Your task to perform on an android device: open chrome privacy settings Image 0: 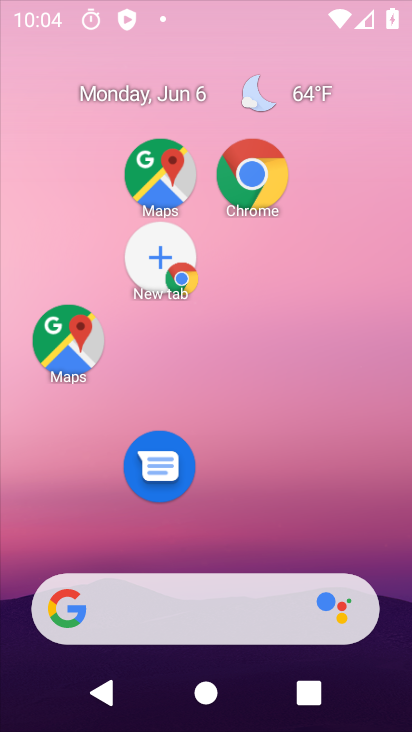
Step 0: press back button
Your task to perform on an android device: open chrome privacy settings Image 1: 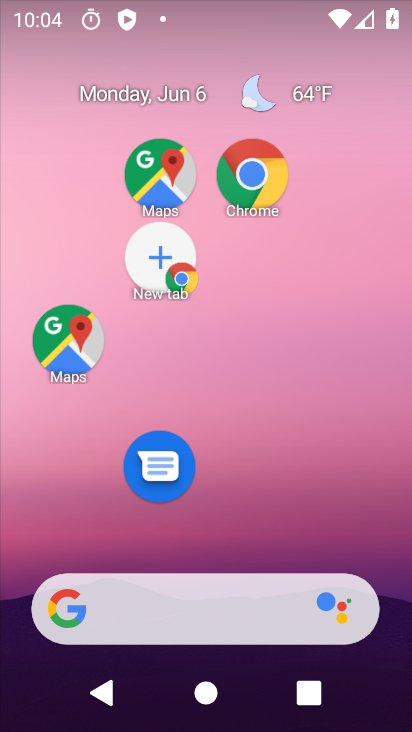
Step 1: drag from (281, 613) to (211, 123)
Your task to perform on an android device: open chrome privacy settings Image 2: 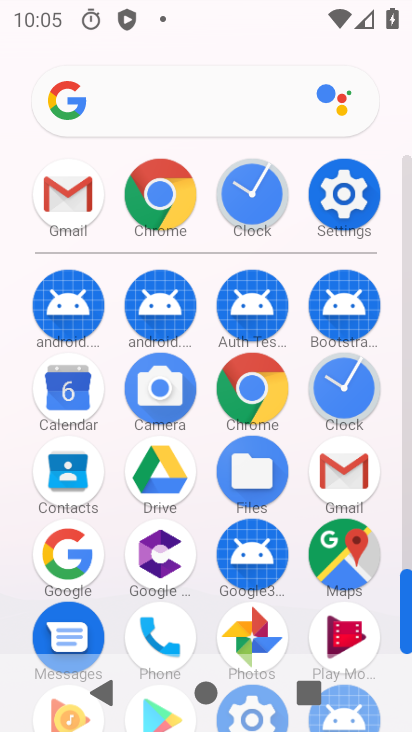
Step 2: click (330, 189)
Your task to perform on an android device: open chrome privacy settings Image 3: 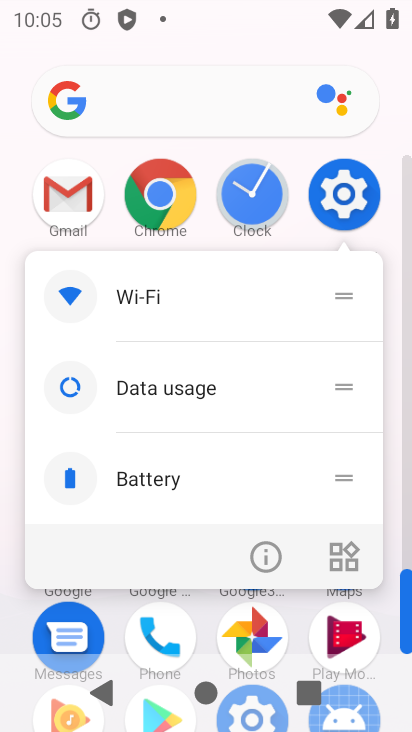
Step 3: click (336, 190)
Your task to perform on an android device: open chrome privacy settings Image 4: 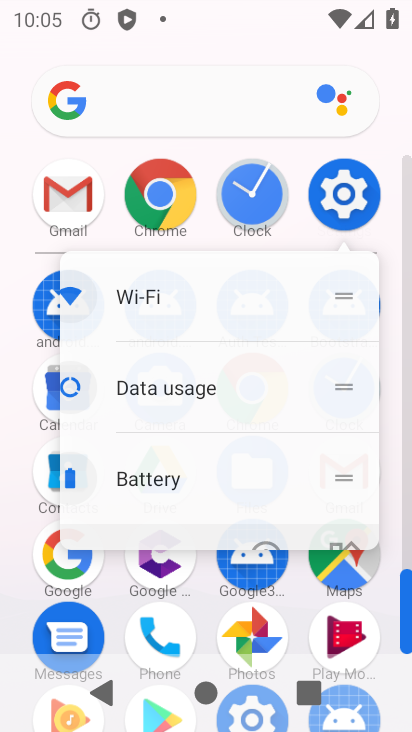
Step 4: click (331, 206)
Your task to perform on an android device: open chrome privacy settings Image 5: 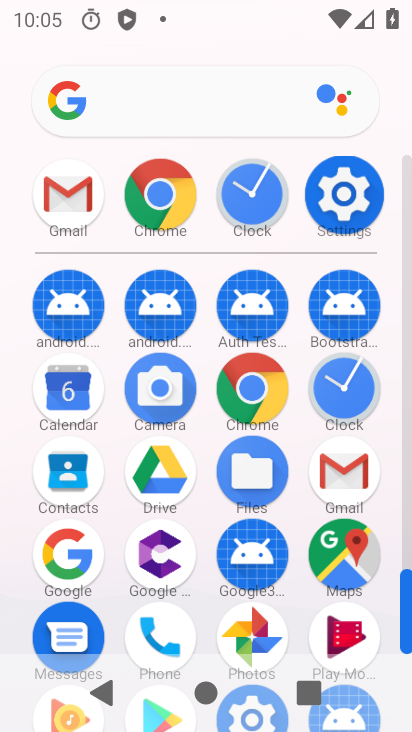
Step 5: click (346, 198)
Your task to perform on an android device: open chrome privacy settings Image 6: 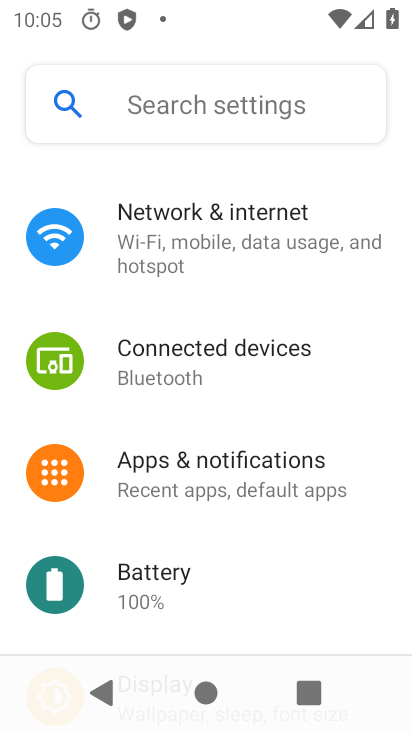
Step 6: click (343, 194)
Your task to perform on an android device: open chrome privacy settings Image 7: 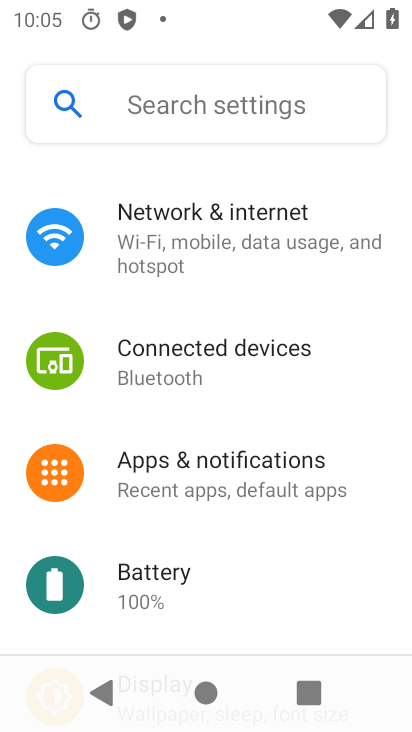
Step 7: click (357, 179)
Your task to perform on an android device: open chrome privacy settings Image 8: 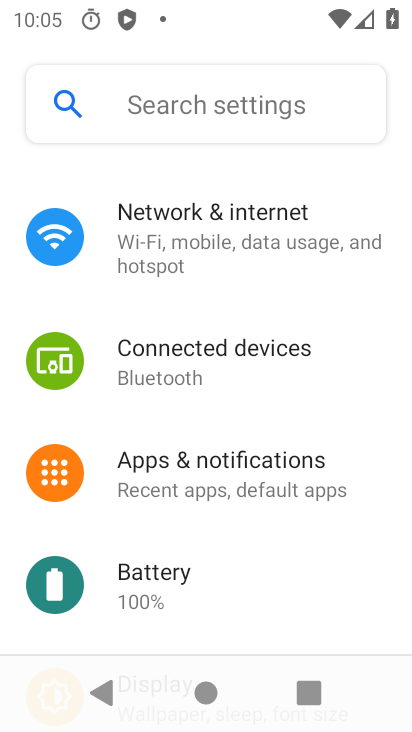
Step 8: click (345, 203)
Your task to perform on an android device: open chrome privacy settings Image 9: 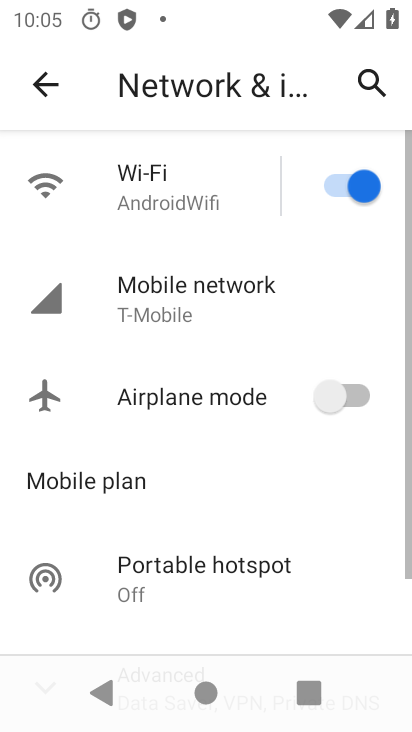
Step 9: click (343, 201)
Your task to perform on an android device: open chrome privacy settings Image 10: 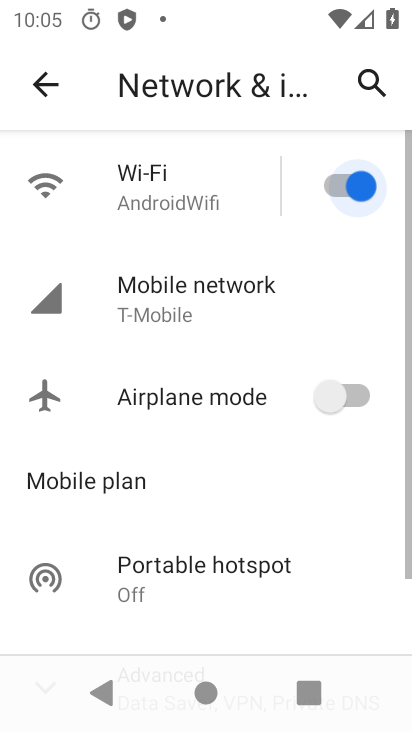
Step 10: click (342, 207)
Your task to perform on an android device: open chrome privacy settings Image 11: 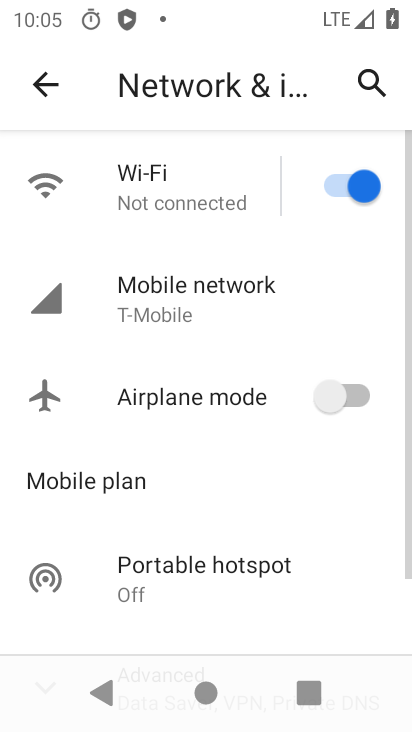
Step 11: click (211, 198)
Your task to perform on an android device: open chrome privacy settings Image 12: 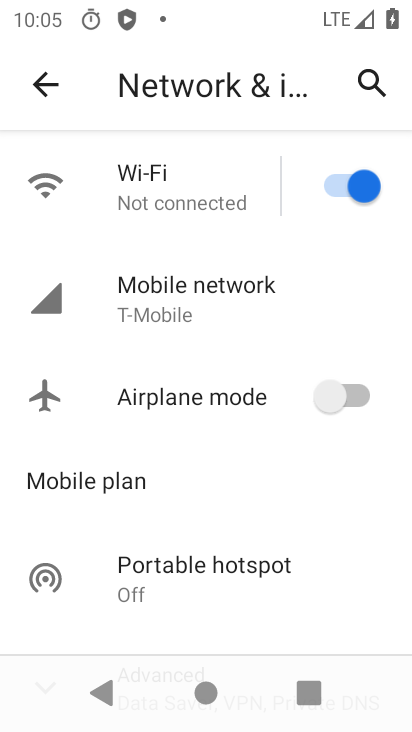
Step 12: drag from (189, 333) to (247, 188)
Your task to perform on an android device: open chrome privacy settings Image 13: 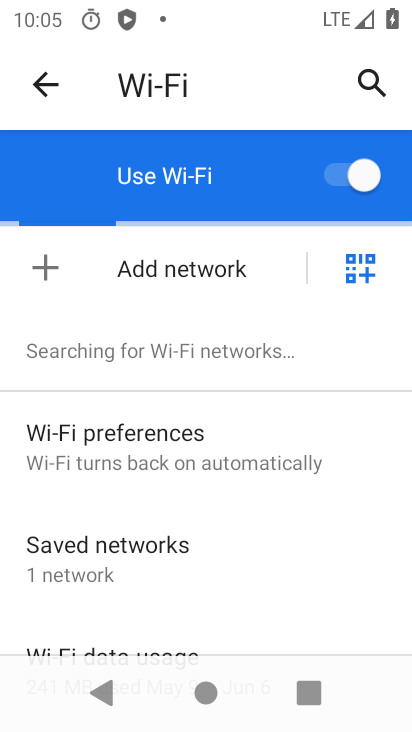
Step 13: click (138, 224)
Your task to perform on an android device: open chrome privacy settings Image 14: 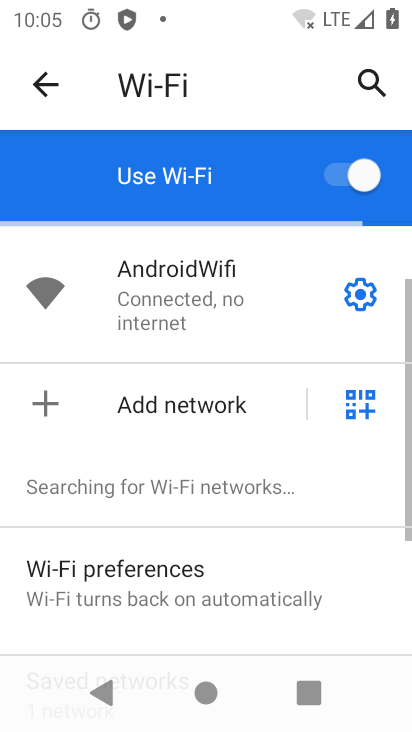
Step 14: click (150, 172)
Your task to perform on an android device: open chrome privacy settings Image 15: 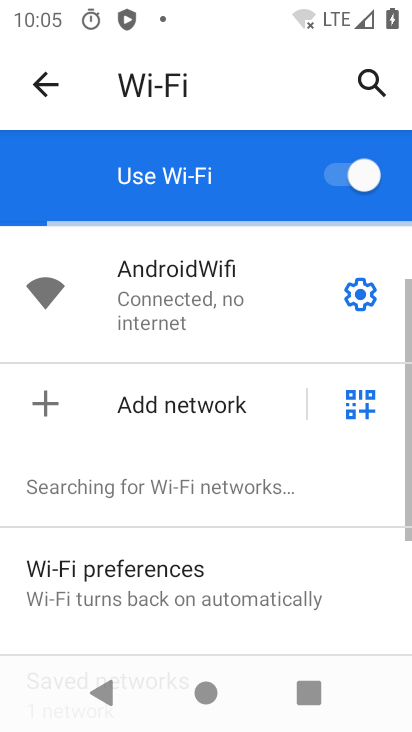
Step 15: drag from (109, 572) to (63, 251)
Your task to perform on an android device: open chrome privacy settings Image 16: 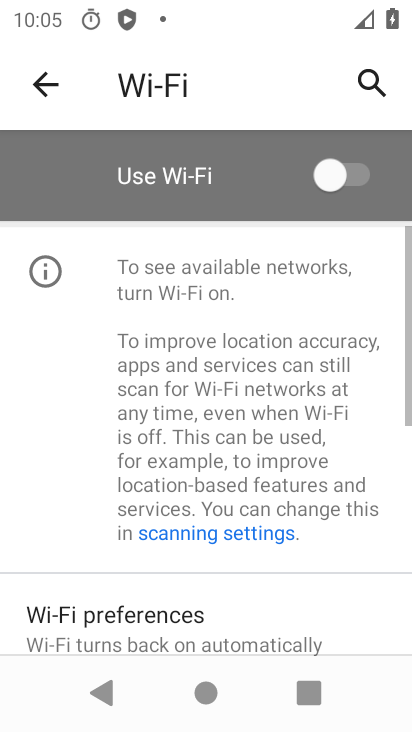
Step 16: drag from (144, 151) to (208, 105)
Your task to perform on an android device: open chrome privacy settings Image 17: 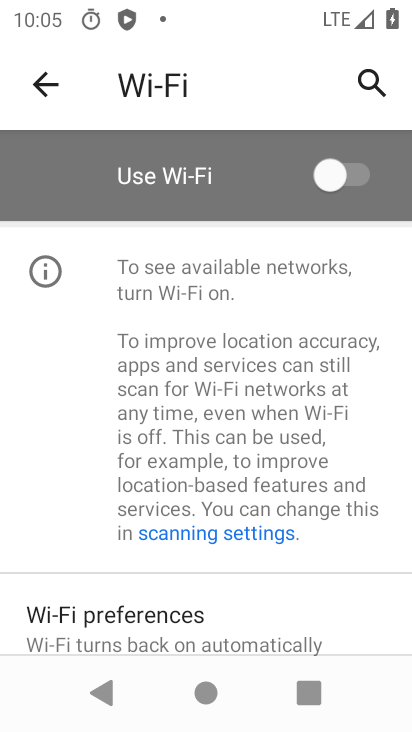
Step 17: drag from (150, 143) to (185, 216)
Your task to perform on an android device: open chrome privacy settings Image 18: 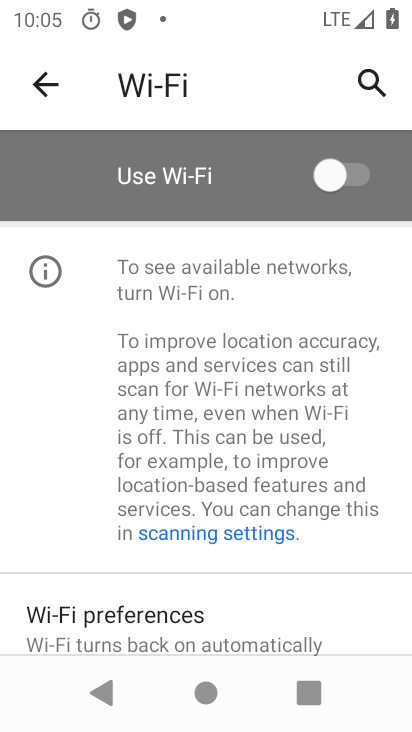
Step 18: click (38, 78)
Your task to perform on an android device: open chrome privacy settings Image 19: 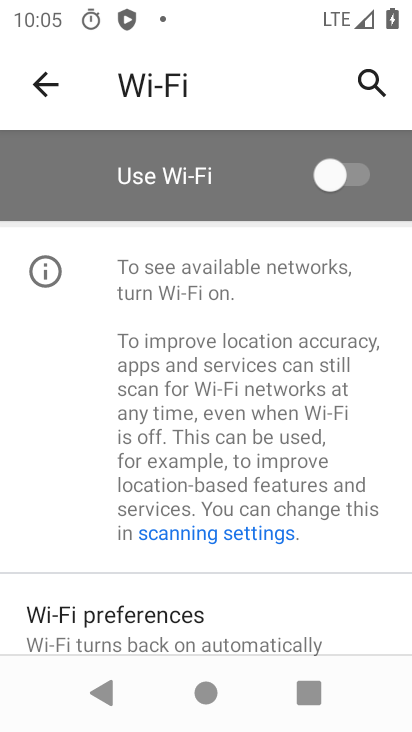
Step 19: click (43, 77)
Your task to perform on an android device: open chrome privacy settings Image 20: 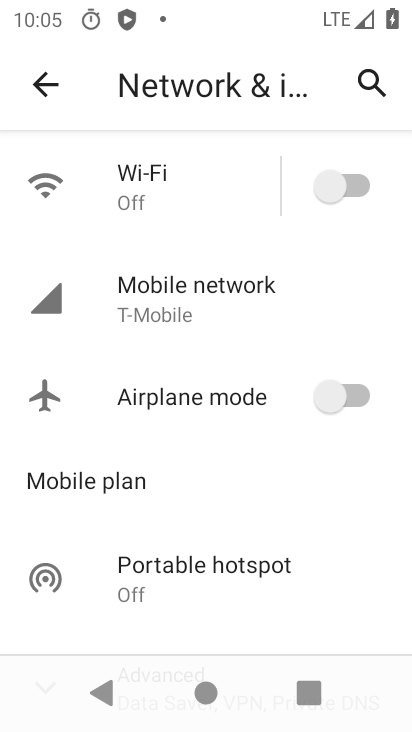
Step 20: click (46, 85)
Your task to perform on an android device: open chrome privacy settings Image 21: 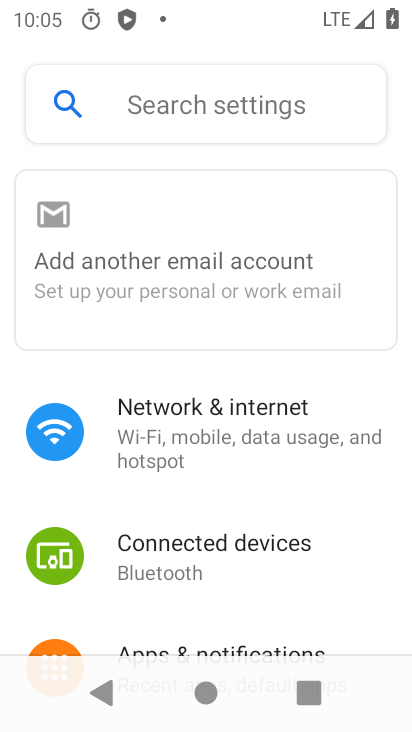
Step 21: click (49, 79)
Your task to perform on an android device: open chrome privacy settings Image 22: 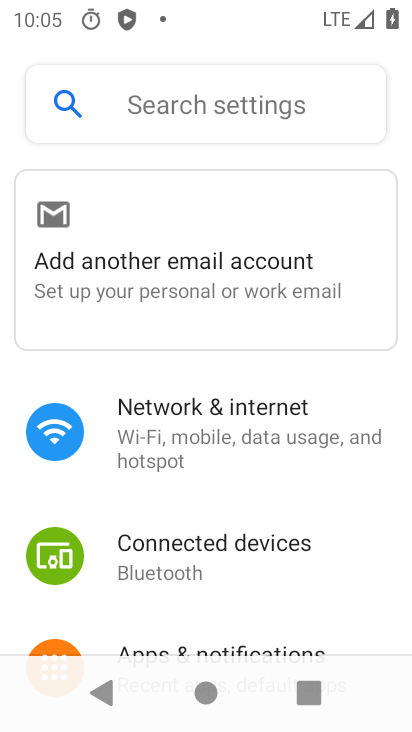
Step 22: press back button
Your task to perform on an android device: open chrome privacy settings Image 23: 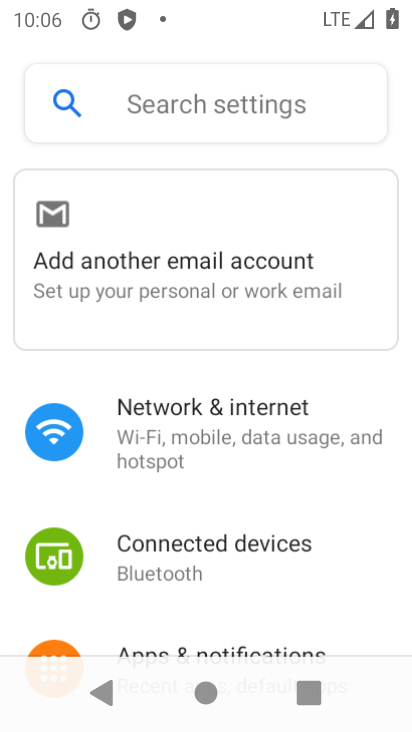
Step 23: click (45, 83)
Your task to perform on an android device: open chrome privacy settings Image 24: 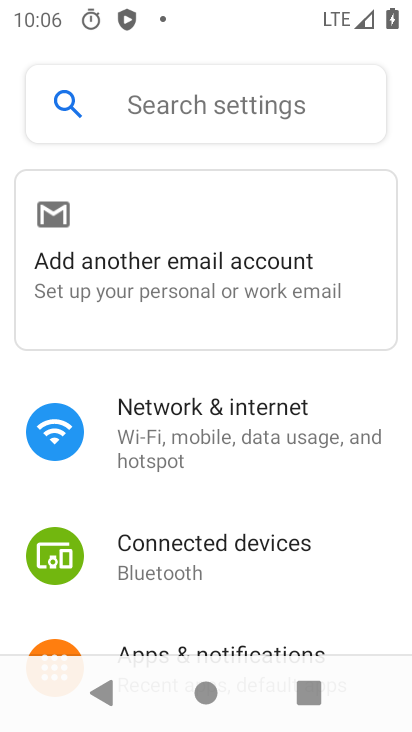
Step 24: press back button
Your task to perform on an android device: open chrome privacy settings Image 25: 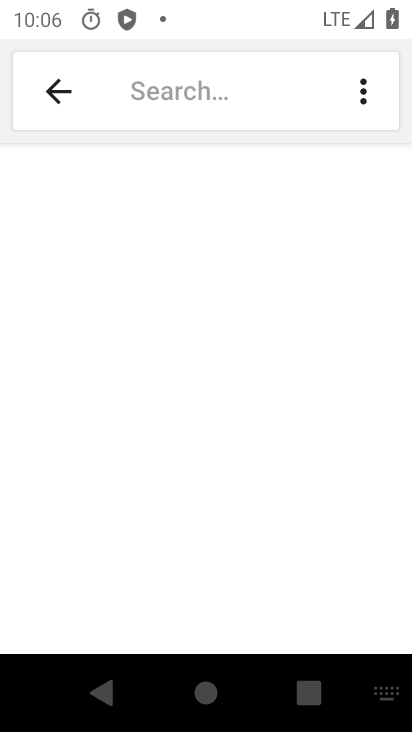
Step 25: press home button
Your task to perform on an android device: open chrome privacy settings Image 26: 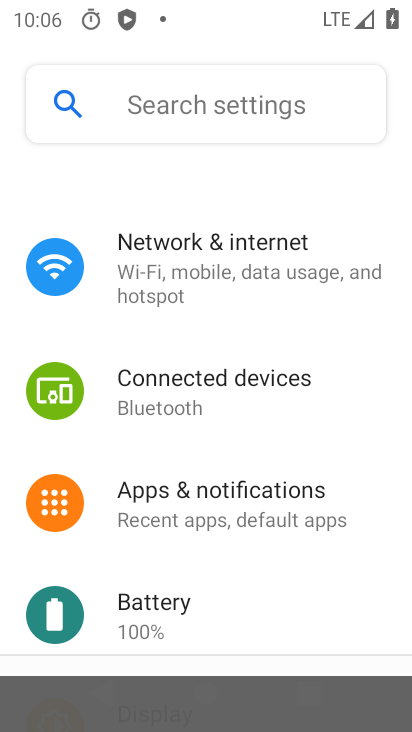
Step 26: press home button
Your task to perform on an android device: open chrome privacy settings Image 27: 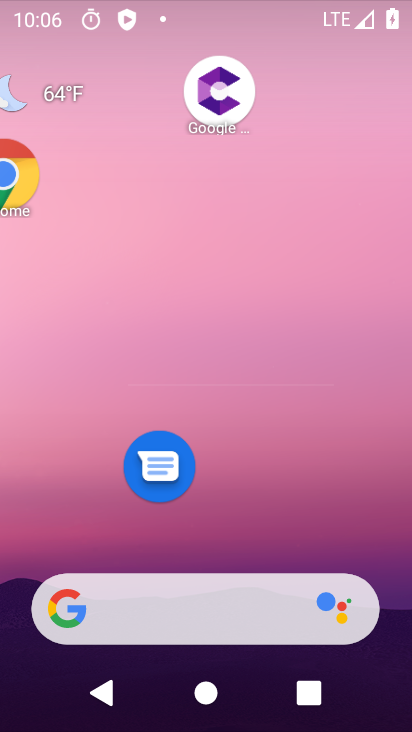
Step 27: press home button
Your task to perform on an android device: open chrome privacy settings Image 28: 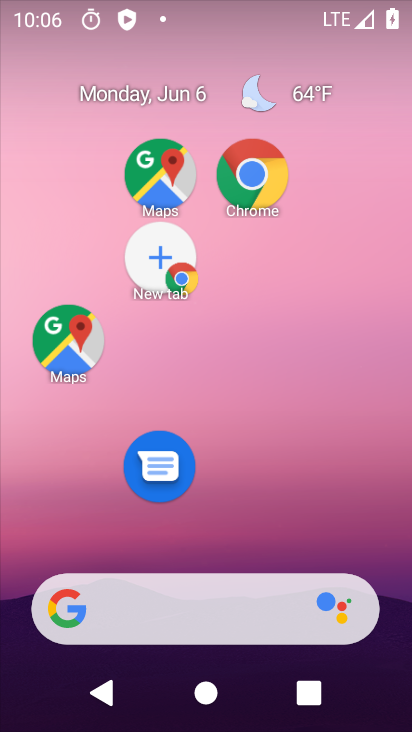
Step 28: drag from (275, 661) to (223, 171)
Your task to perform on an android device: open chrome privacy settings Image 29: 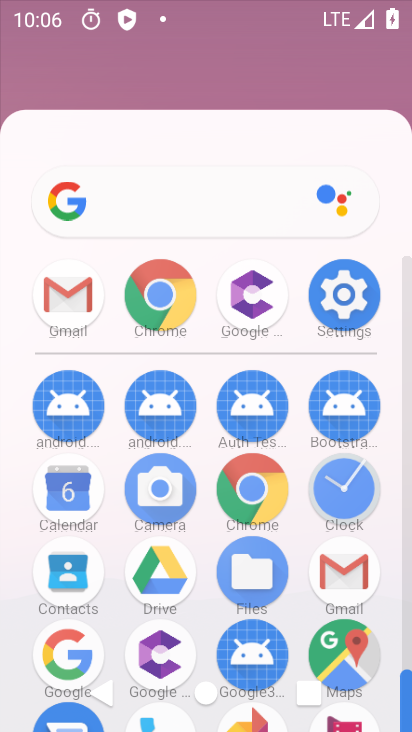
Step 29: drag from (271, 541) to (212, 169)
Your task to perform on an android device: open chrome privacy settings Image 30: 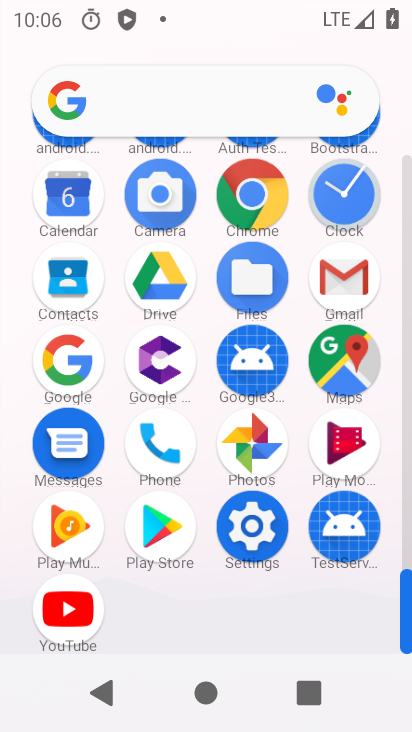
Step 30: click (247, 194)
Your task to perform on an android device: open chrome privacy settings Image 31: 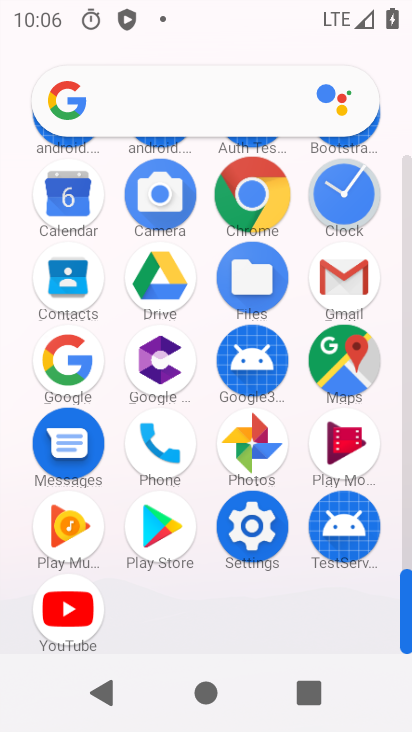
Step 31: click (247, 194)
Your task to perform on an android device: open chrome privacy settings Image 32: 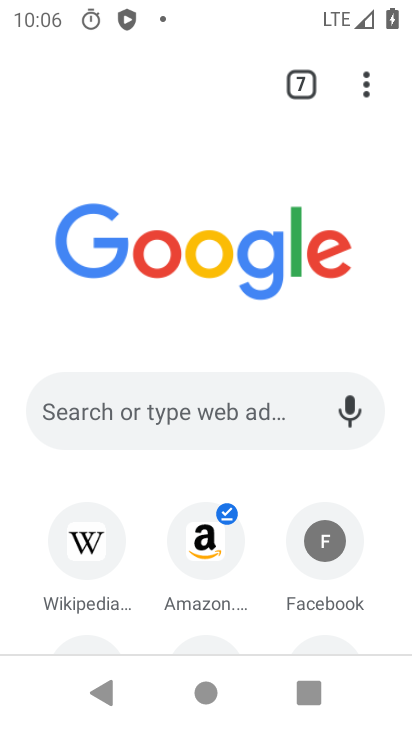
Step 32: drag from (371, 90) to (74, 511)
Your task to perform on an android device: open chrome privacy settings Image 33: 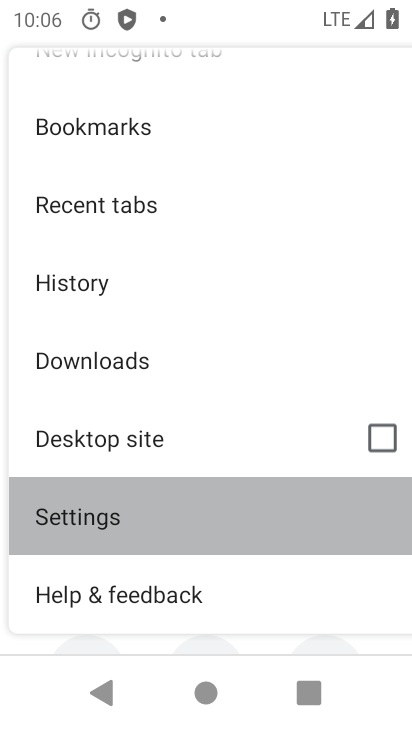
Step 33: click (73, 510)
Your task to perform on an android device: open chrome privacy settings Image 34: 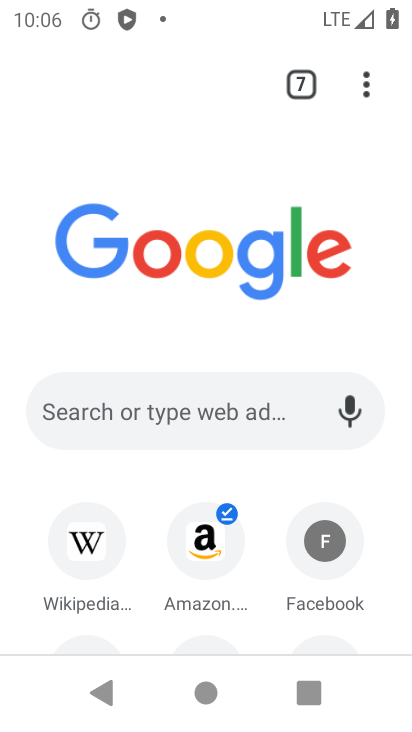
Step 34: click (73, 510)
Your task to perform on an android device: open chrome privacy settings Image 35: 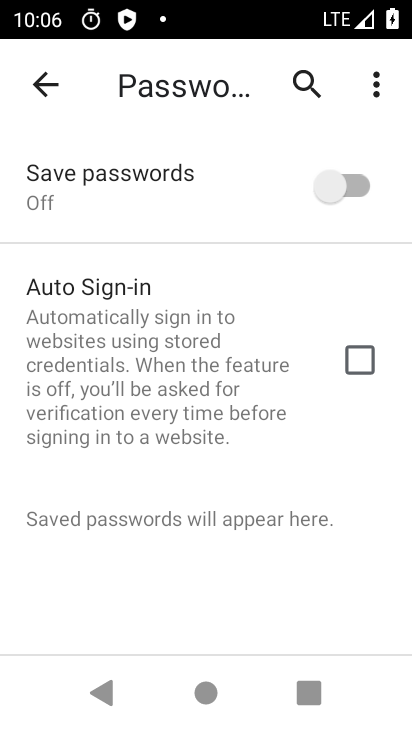
Step 35: click (51, 63)
Your task to perform on an android device: open chrome privacy settings Image 36: 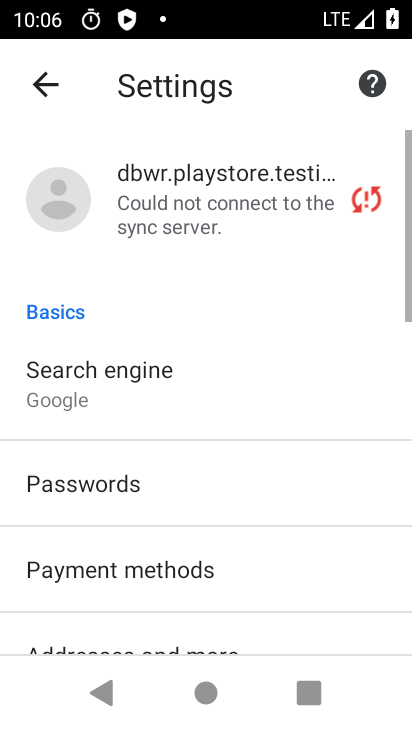
Step 36: drag from (198, 536) to (194, 158)
Your task to perform on an android device: open chrome privacy settings Image 37: 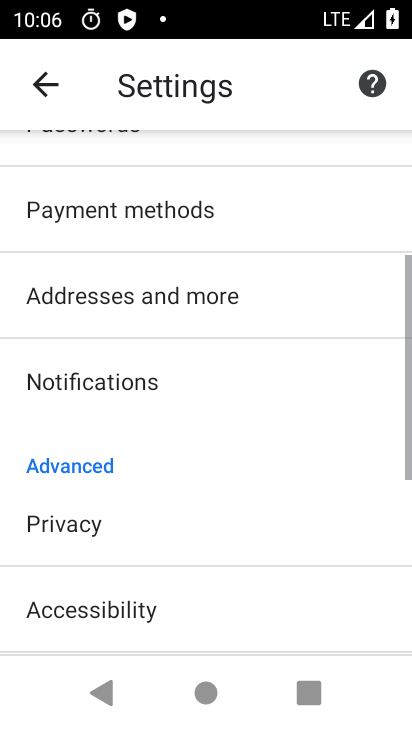
Step 37: drag from (196, 497) to (156, 252)
Your task to perform on an android device: open chrome privacy settings Image 38: 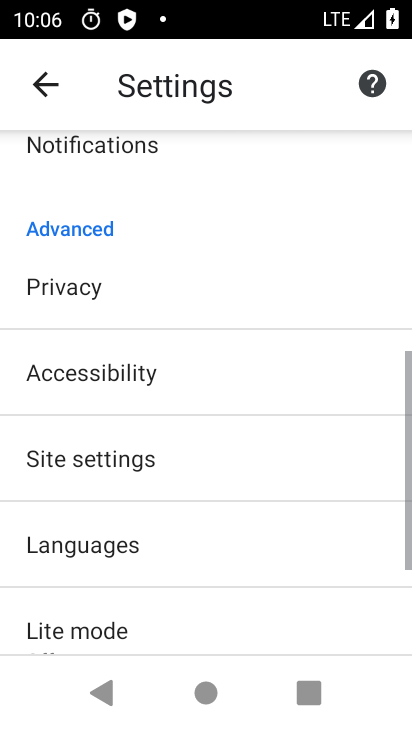
Step 38: drag from (163, 491) to (131, 281)
Your task to perform on an android device: open chrome privacy settings Image 39: 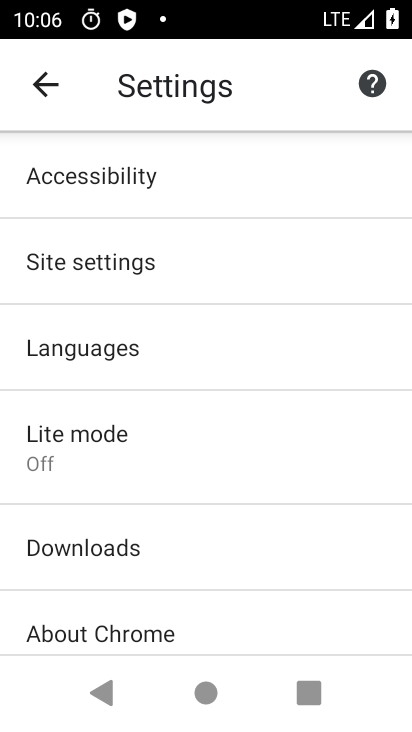
Step 39: drag from (72, 242) to (108, 523)
Your task to perform on an android device: open chrome privacy settings Image 40: 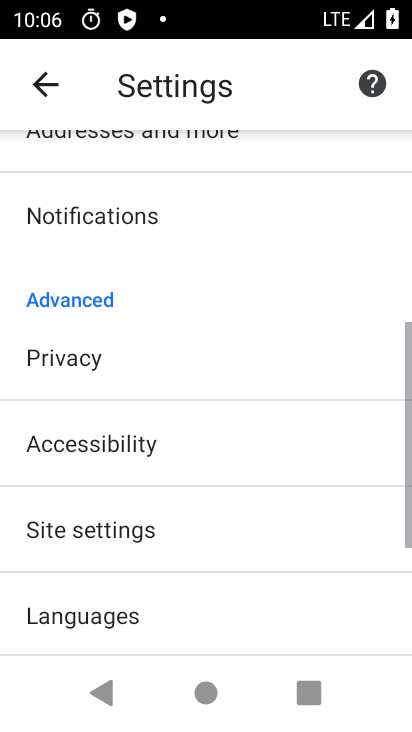
Step 40: drag from (79, 272) to (122, 553)
Your task to perform on an android device: open chrome privacy settings Image 41: 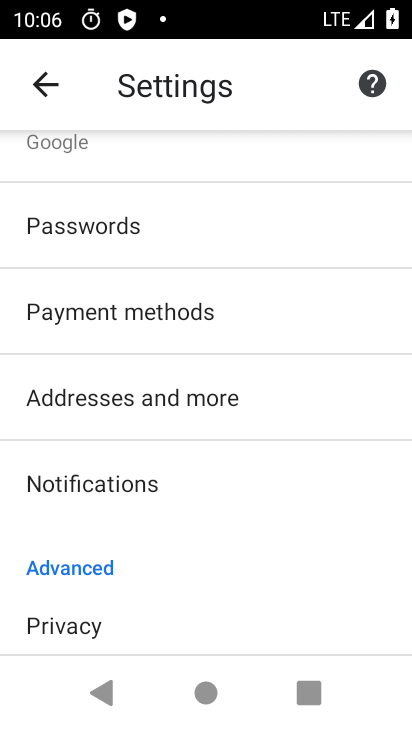
Step 41: click (57, 625)
Your task to perform on an android device: open chrome privacy settings Image 42: 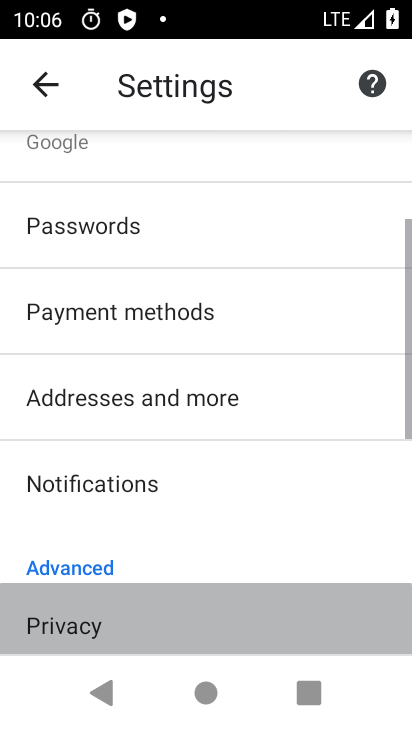
Step 42: click (57, 625)
Your task to perform on an android device: open chrome privacy settings Image 43: 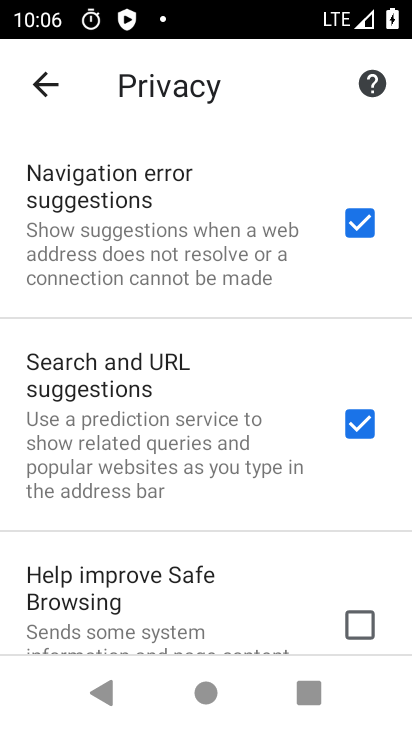
Step 43: task complete